Your task to perform on an android device: Is it going to rain this weekend? Image 0: 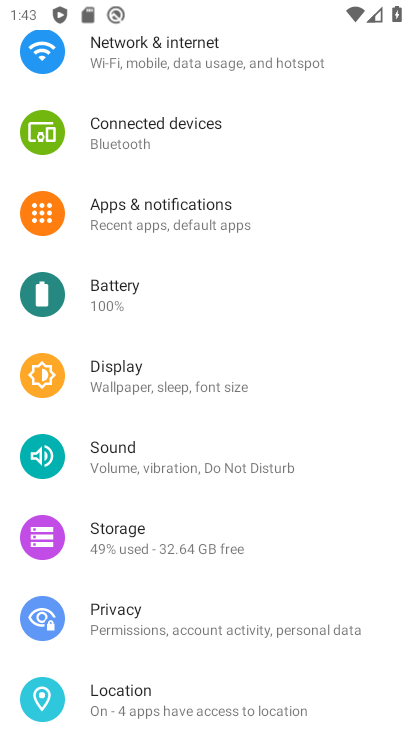
Step 0: press home button
Your task to perform on an android device: Is it going to rain this weekend? Image 1: 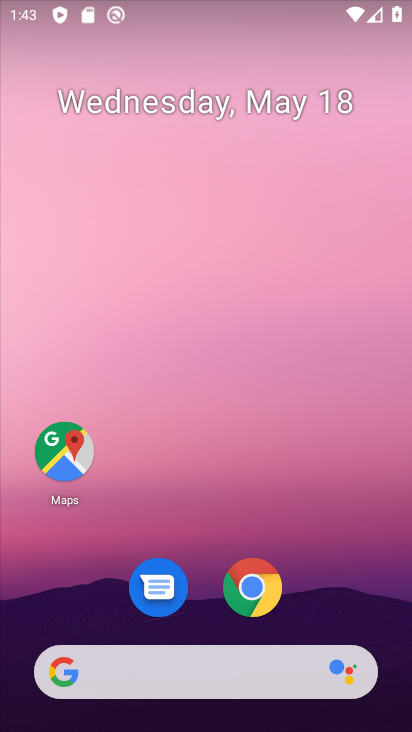
Step 1: click (142, 672)
Your task to perform on an android device: Is it going to rain this weekend? Image 2: 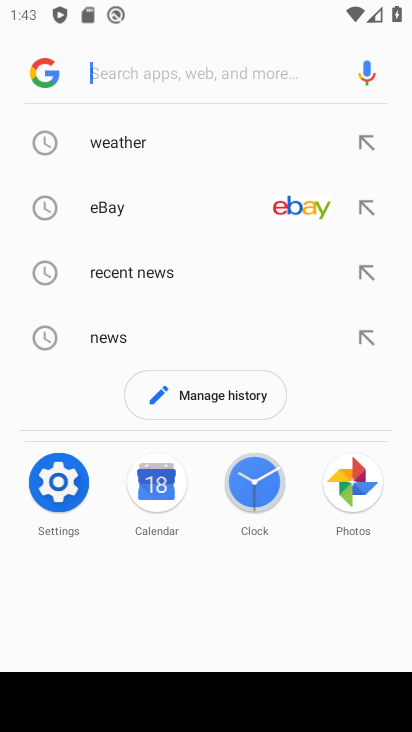
Step 2: click (98, 145)
Your task to perform on an android device: Is it going to rain this weekend? Image 3: 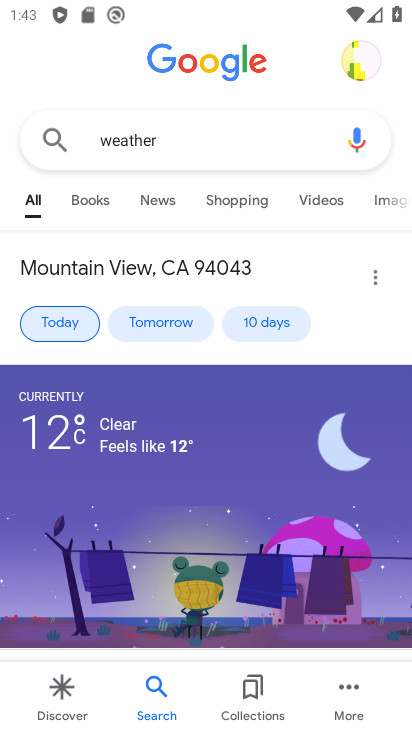
Step 3: click (271, 321)
Your task to perform on an android device: Is it going to rain this weekend? Image 4: 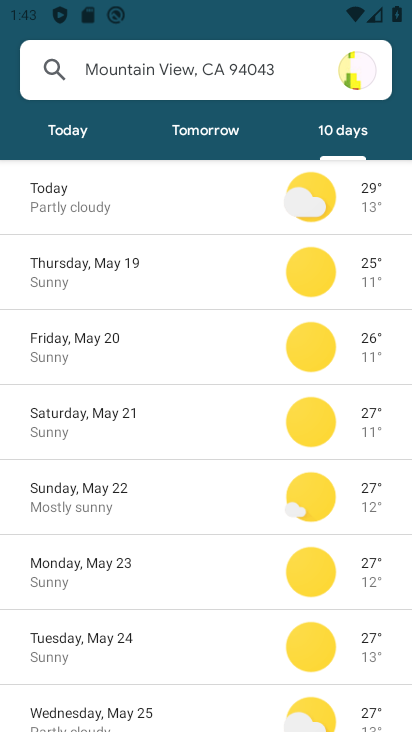
Step 4: task complete